Your task to perform on an android device: Play the last video I watched on Youtube Image 0: 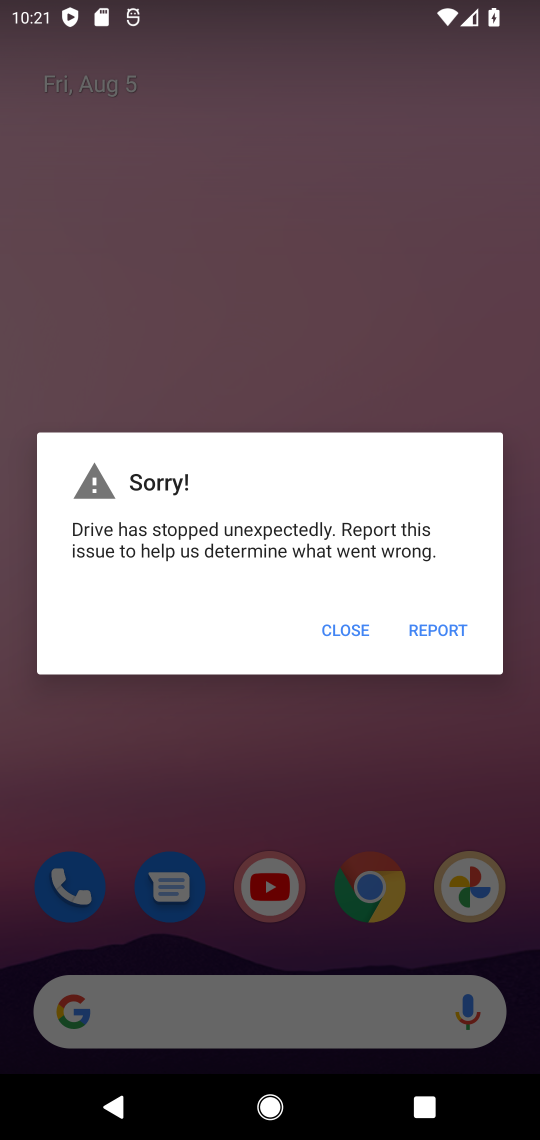
Step 0: press home button
Your task to perform on an android device: Play the last video I watched on Youtube Image 1: 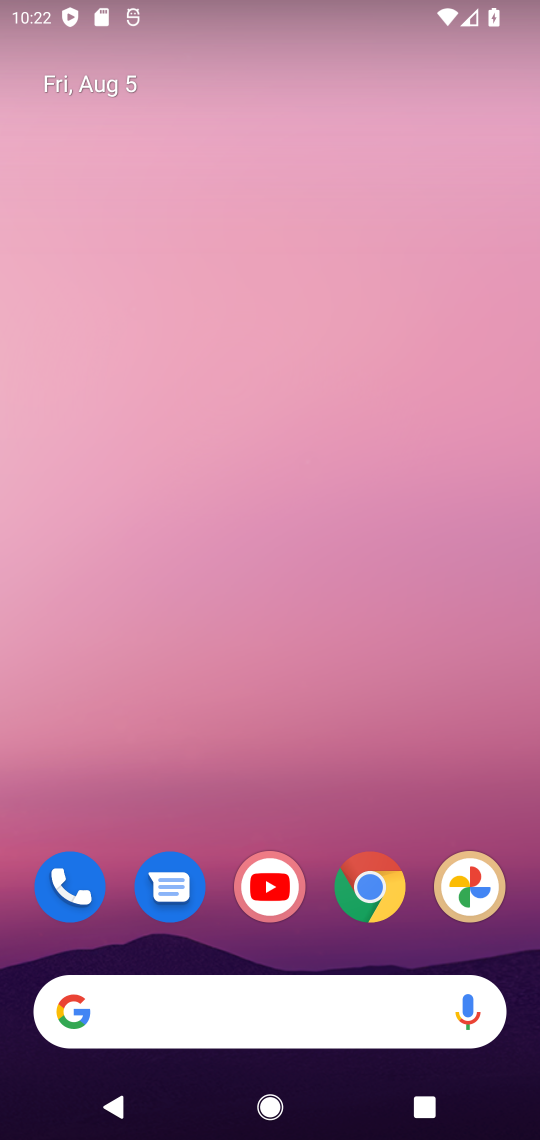
Step 1: drag from (268, 507) to (390, 17)
Your task to perform on an android device: Play the last video I watched on Youtube Image 2: 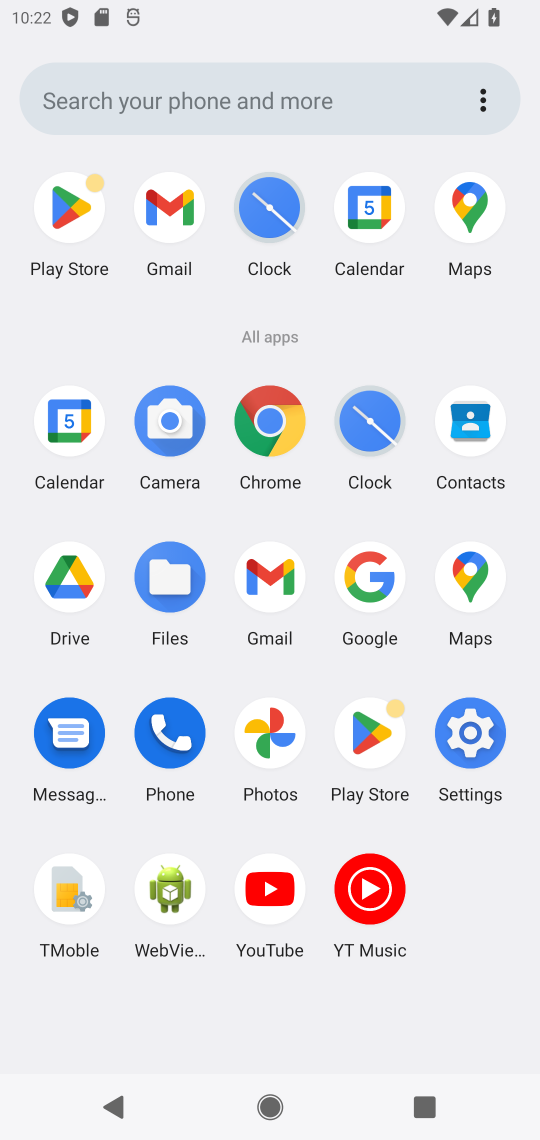
Step 2: click (259, 887)
Your task to perform on an android device: Play the last video I watched on Youtube Image 3: 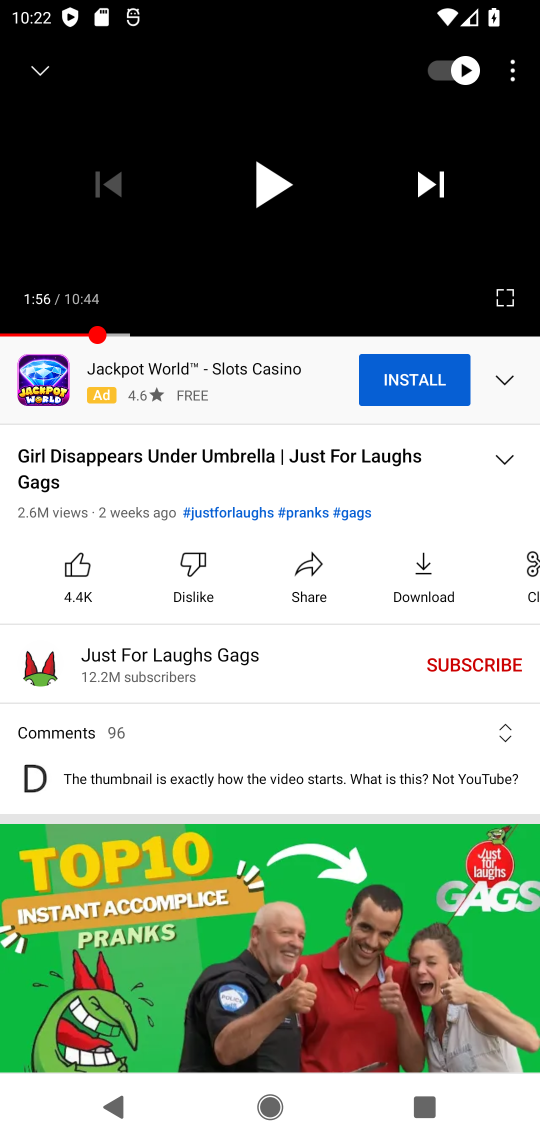
Step 3: drag from (334, 838) to (336, 131)
Your task to perform on an android device: Play the last video I watched on Youtube Image 4: 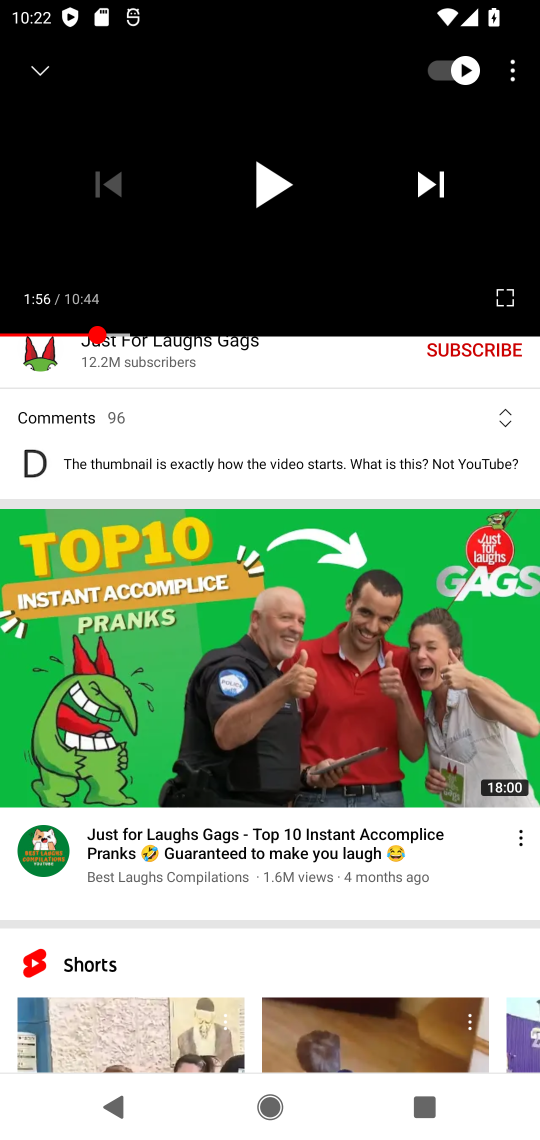
Step 4: click (108, 1104)
Your task to perform on an android device: Play the last video I watched on Youtube Image 5: 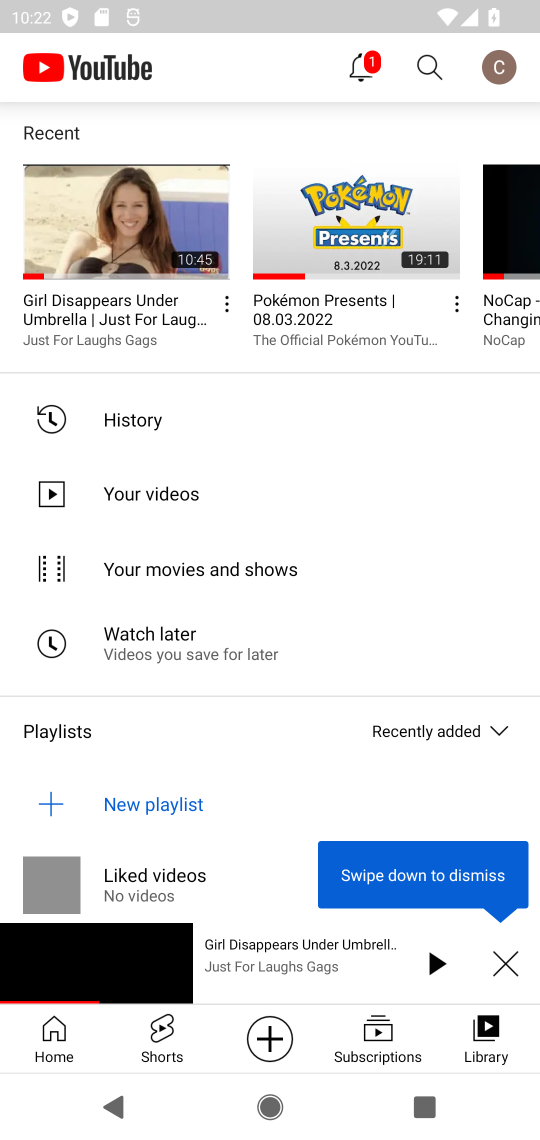
Step 5: click (477, 1050)
Your task to perform on an android device: Play the last video I watched on Youtube Image 6: 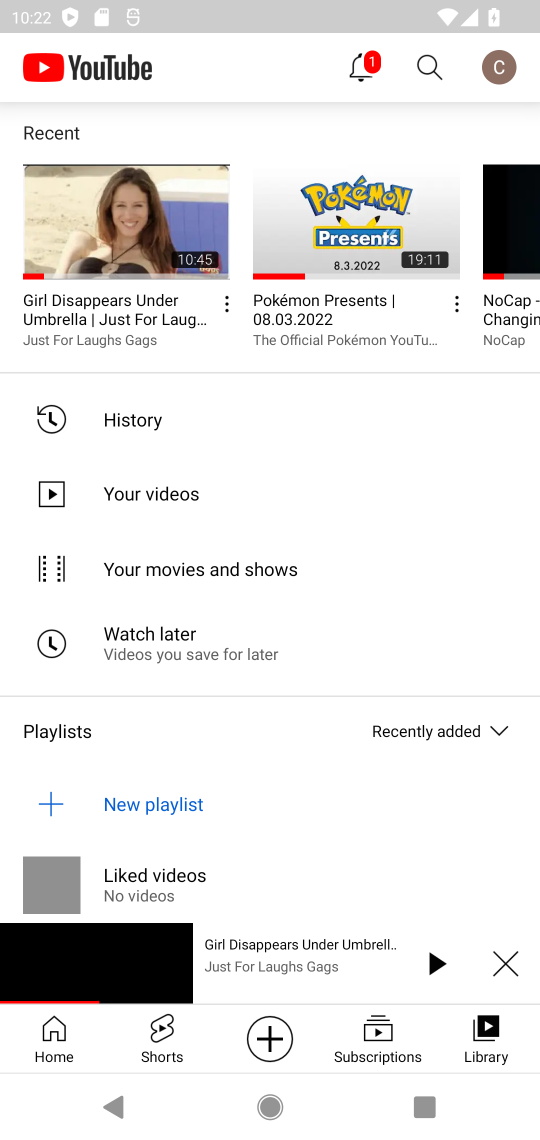
Step 6: click (505, 959)
Your task to perform on an android device: Play the last video I watched on Youtube Image 7: 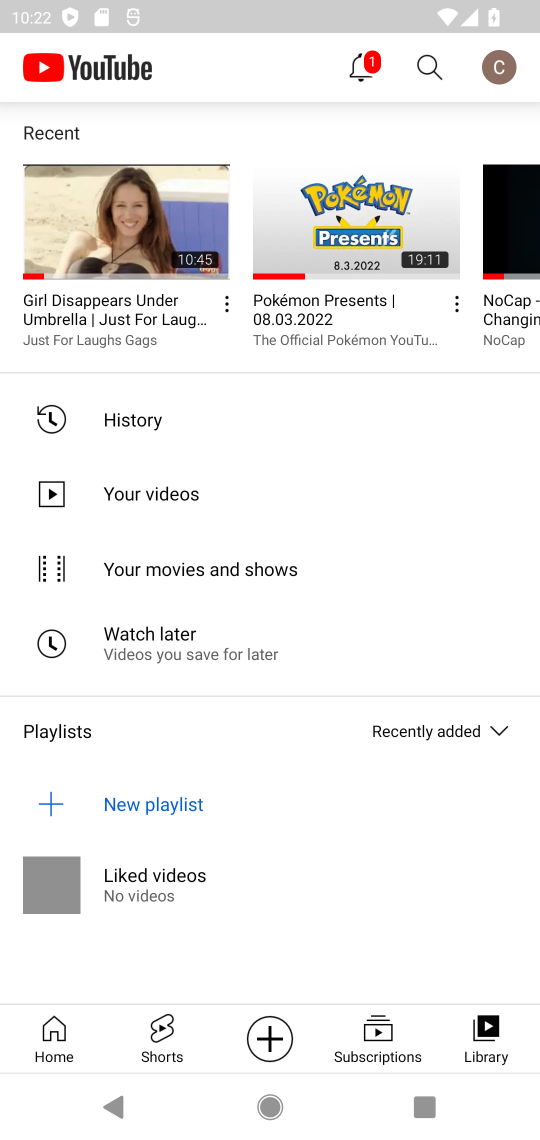
Step 7: click (171, 217)
Your task to perform on an android device: Play the last video I watched on Youtube Image 8: 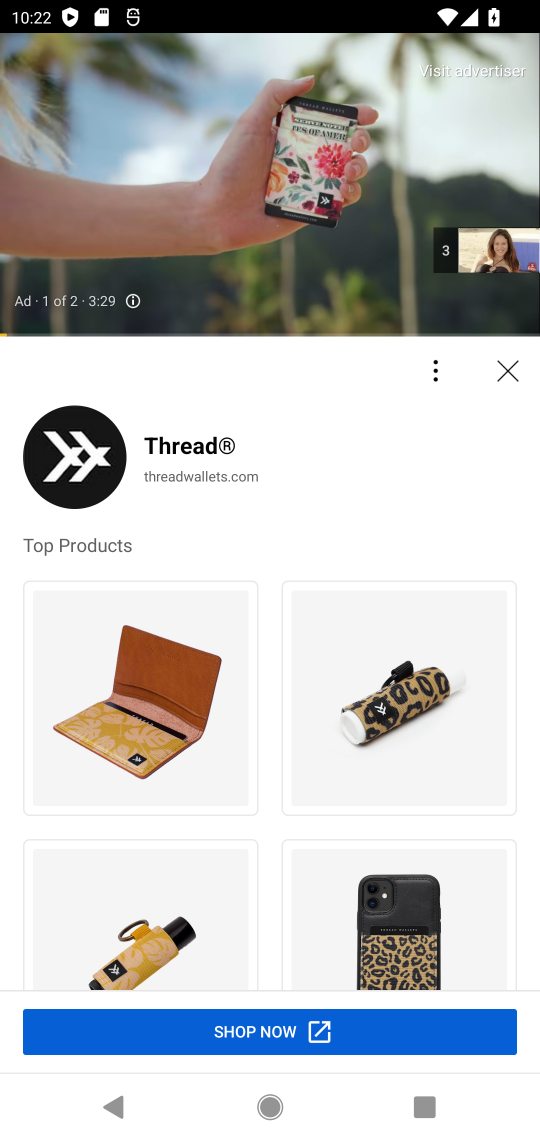
Step 8: click (506, 371)
Your task to perform on an android device: Play the last video I watched on Youtube Image 9: 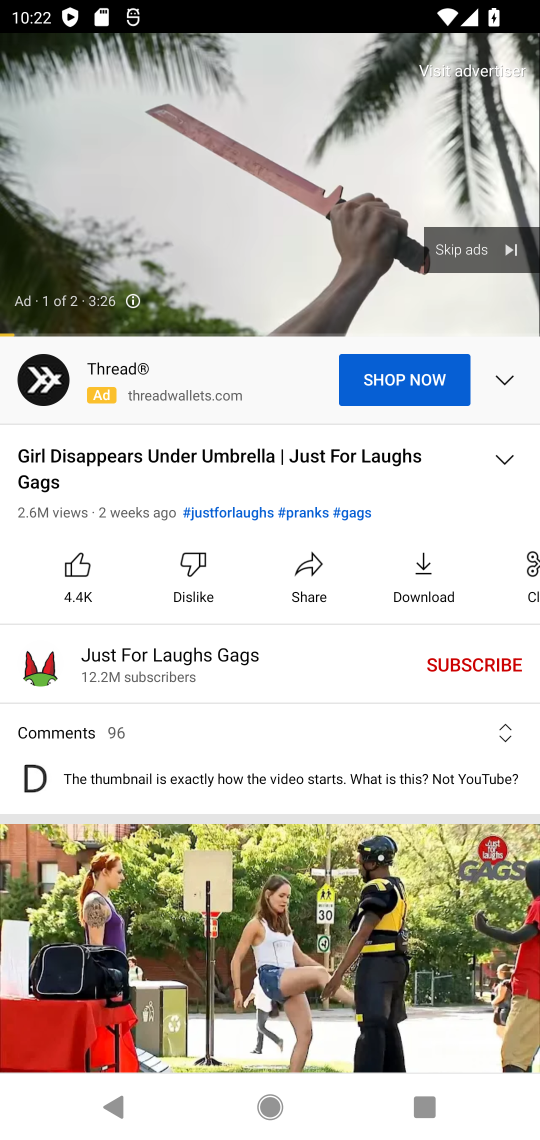
Step 9: click (468, 260)
Your task to perform on an android device: Play the last video I watched on Youtube Image 10: 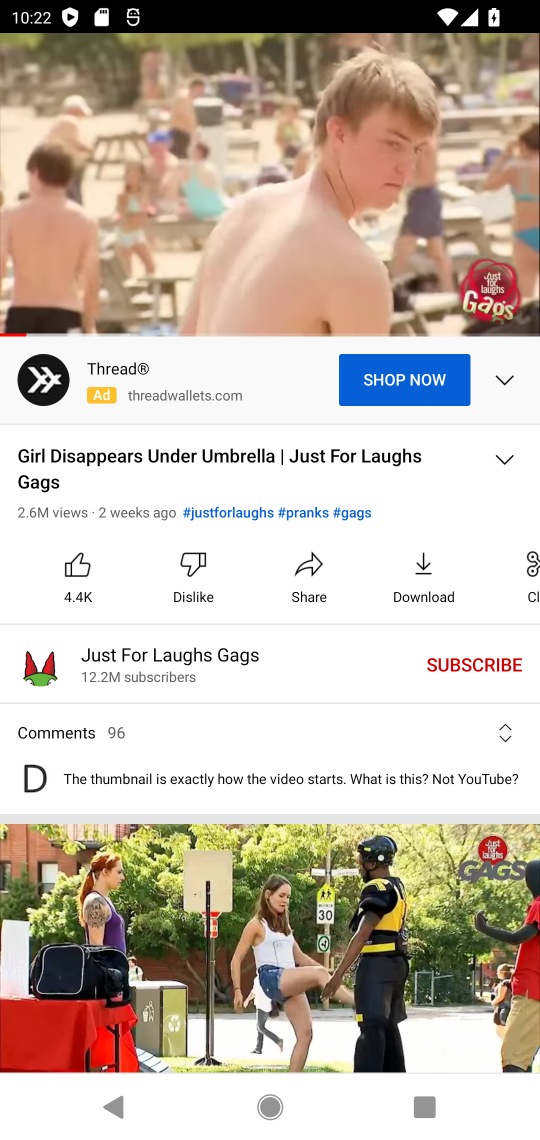
Step 10: task complete